Your task to perform on an android device: turn off picture-in-picture Image 0: 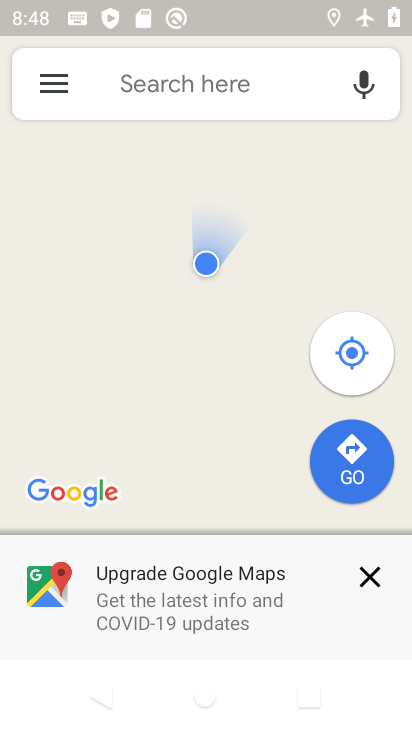
Step 0: press home button
Your task to perform on an android device: turn off picture-in-picture Image 1: 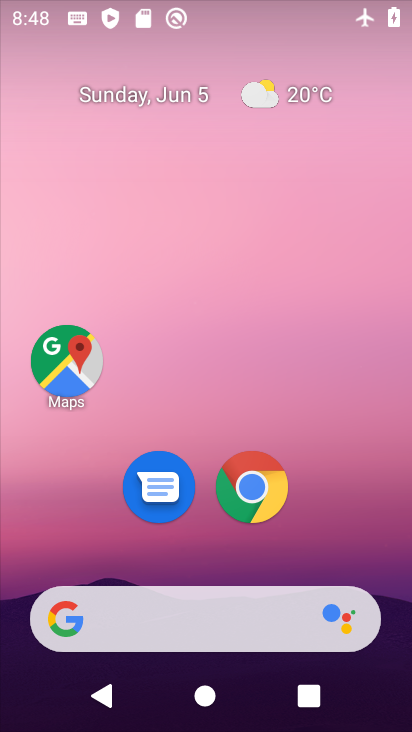
Step 1: drag from (227, 601) to (227, 136)
Your task to perform on an android device: turn off picture-in-picture Image 2: 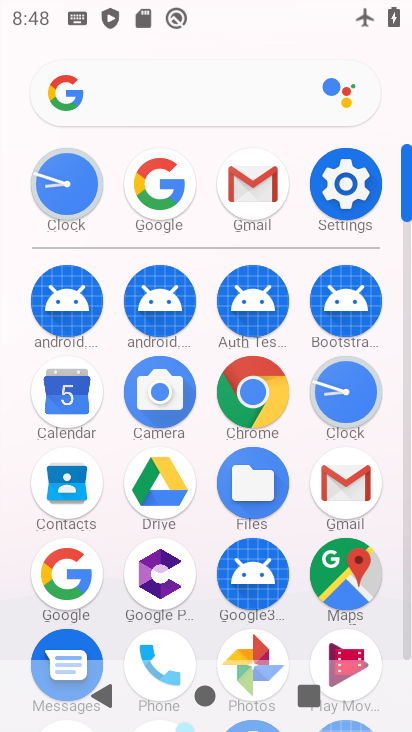
Step 2: click (330, 203)
Your task to perform on an android device: turn off picture-in-picture Image 3: 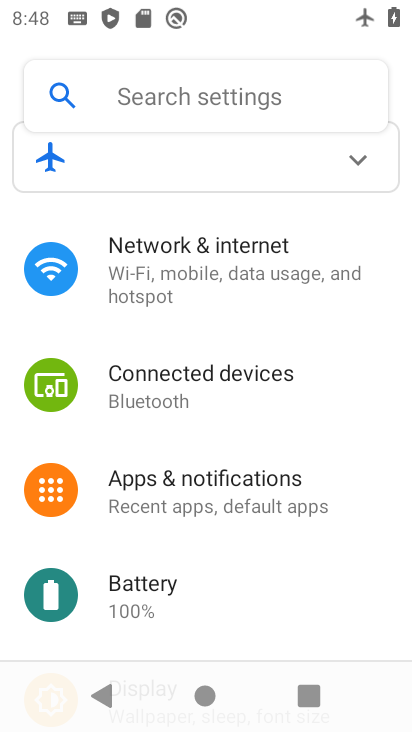
Step 3: click (180, 498)
Your task to perform on an android device: turn off picture-in-picture Image 4: 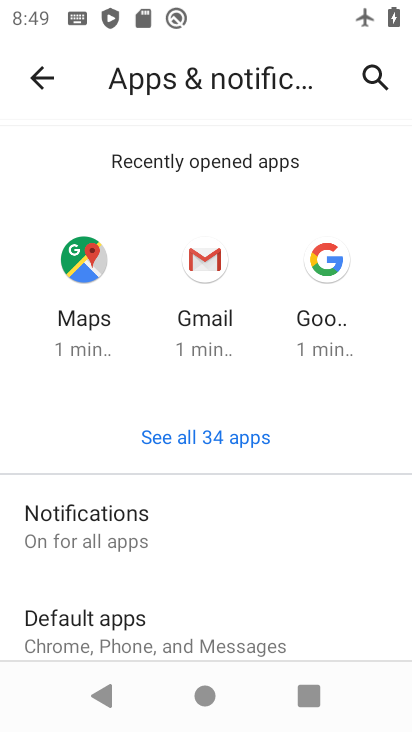
Step 4: drag from (202, 541) to (180, 195)
Your task to perform on an android device: turn off picture-in-picture Image 5: 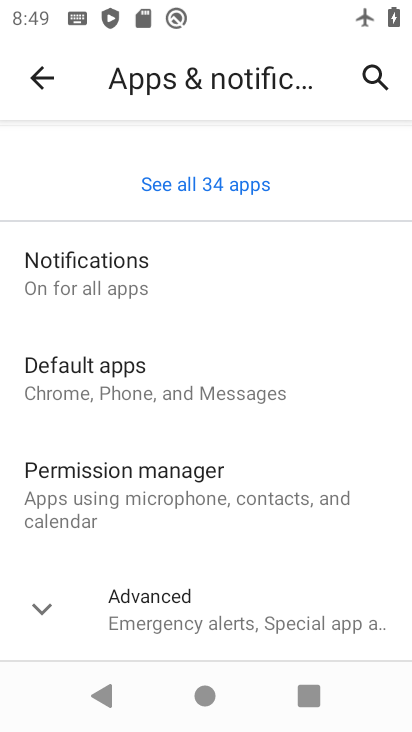
Step 5: click (211, 599)
Your task to perform on an android device: turn off picture-in-picture Image 6: 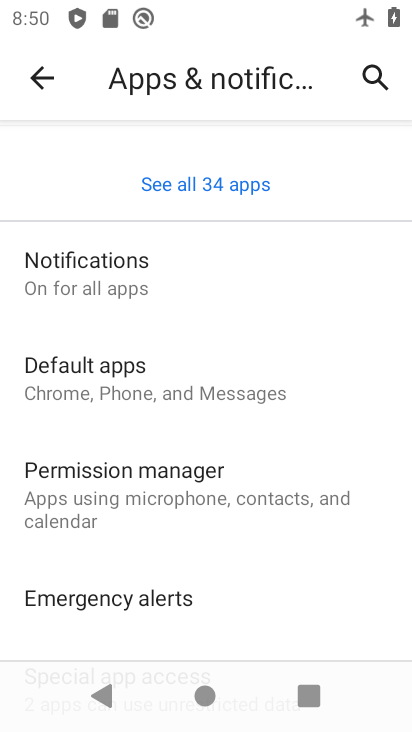
Step 6: drag from (185, 512) to (160, 149)
Your task to perform on an android device: turn off picture-in-picture Image 7: 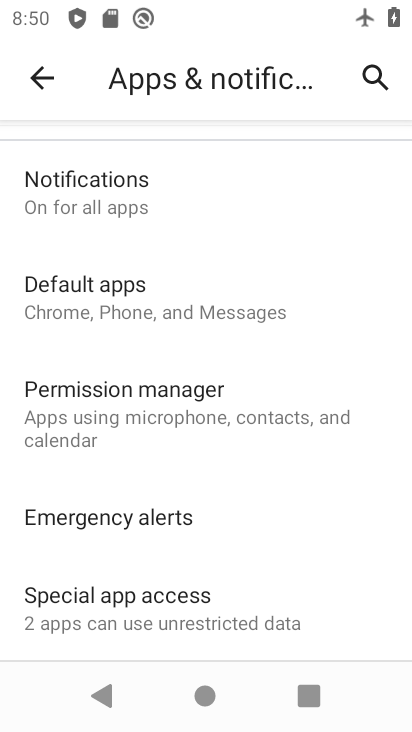
Step 7: drag from (123, 506) to (123, 218)
Your task to perform on an android device: turn off picture-in-picture Image 8: 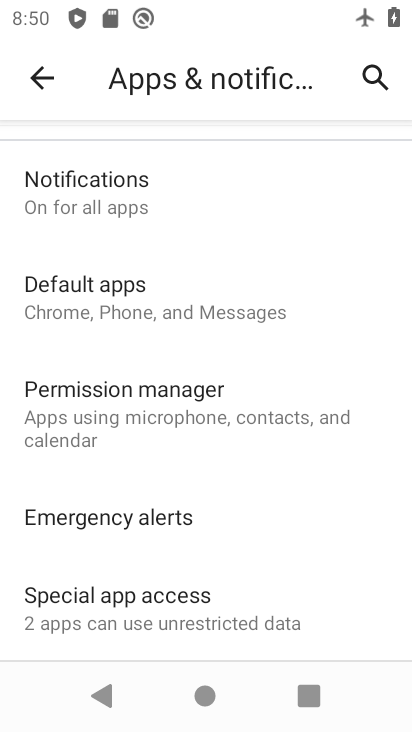
Step 8: click (197, 605)
Your task to perform on an android device: turn off picture-in-picture Image 9: 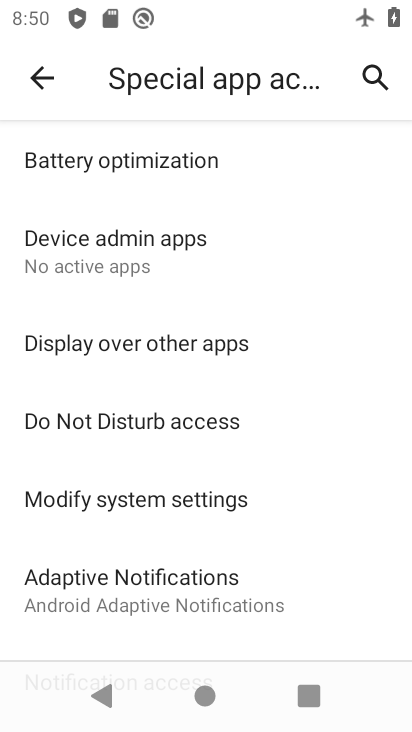
Step 9: drag from (177, 496) to (197, 180)
Your task to perform on an android device: turn off picture-in-picture Image 10: 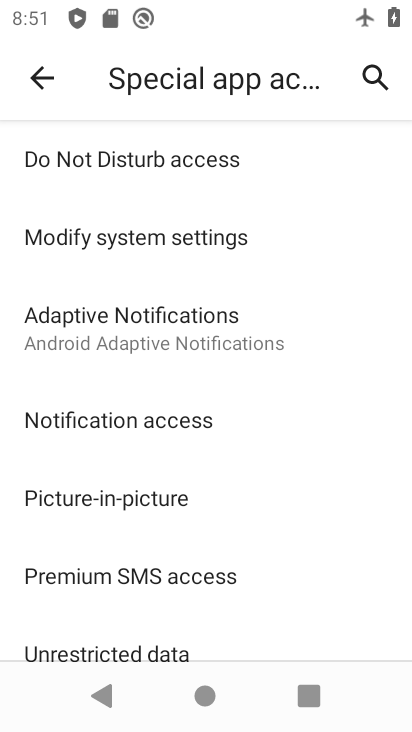
Step 10: click (157, 499)
Your task to perform on an android device: turn off picture-in-picture Image 11: 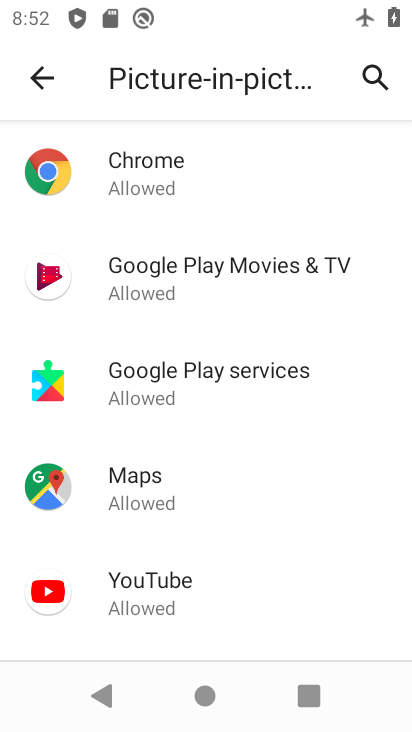
Step 11: click (216, 147)
Your task to perform on an android device: turn off picture-in-picture Image 12: 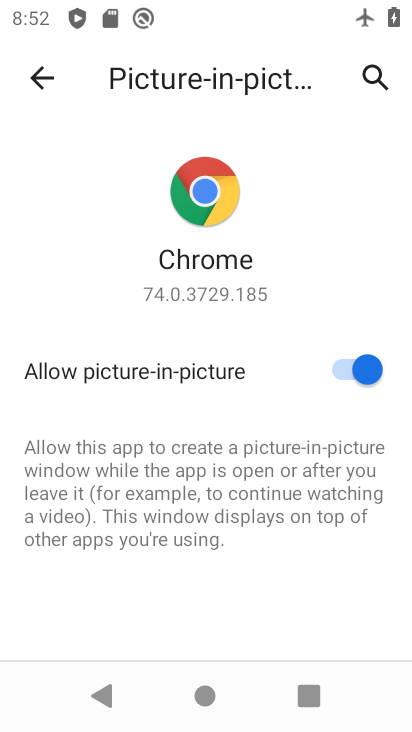
Step 12: click (349, 381)
Your task to perform on an android device: turn off picture-in-picture Image 13: 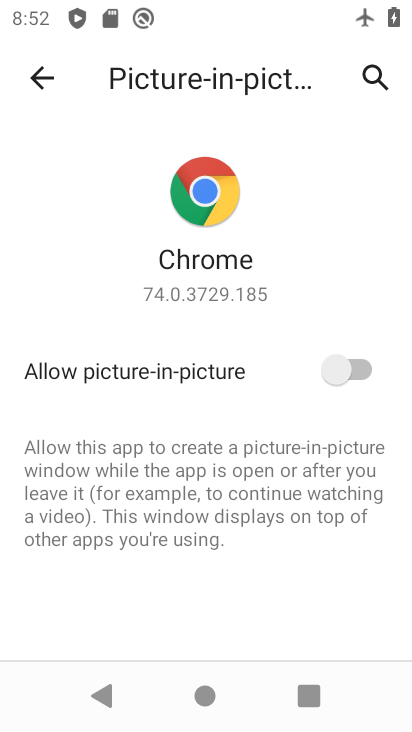
Step 13: task complete